Your task to perform on an android device: Open ESPN.com Image 0: 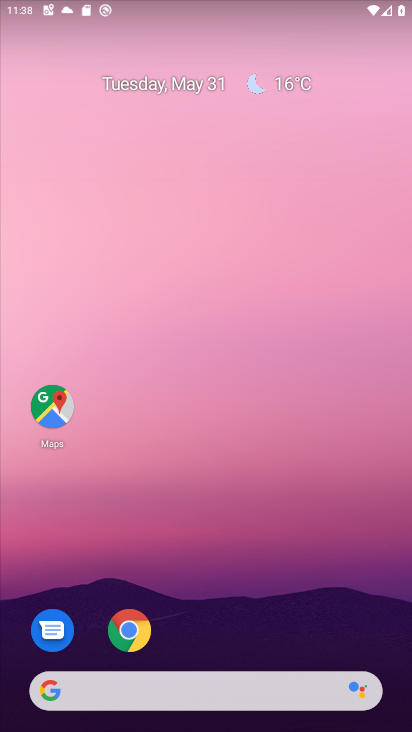
Step 0: drag from (287, 566) to (214, 133)
Your task to perform on an android device: Open ESPN.com Image 1: 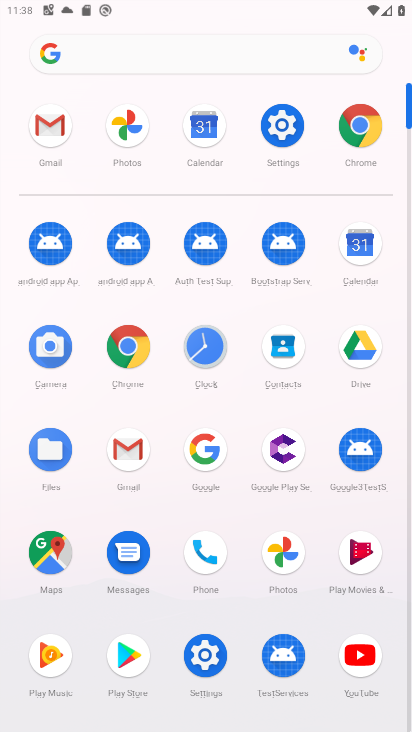
Step 1: click (364, 124)
Your task to perform on an android device: Open ESPN.com Image 2: 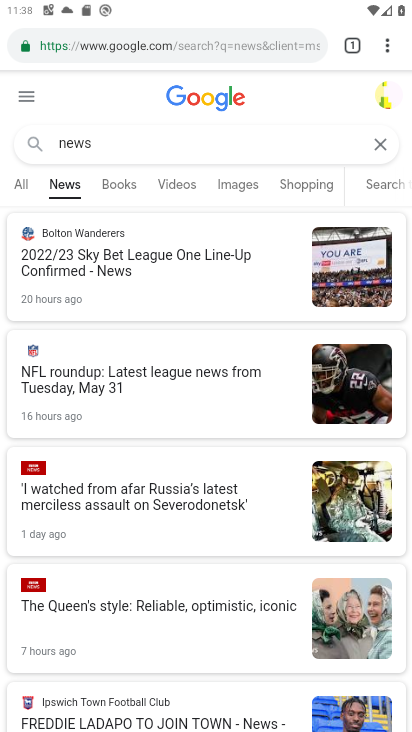
Step 2: click (243, 48)
Your task to perform on an android device: Open ESPN.com Image 3: 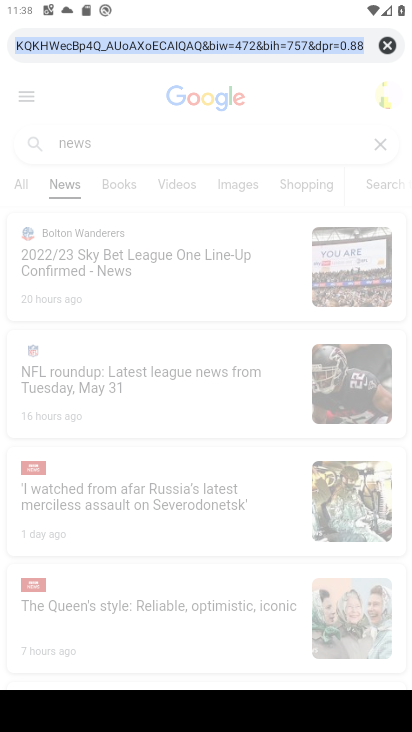
Step 3: type "espn.com"
Your task to perform on an android device: Open ESPN.com Image 4: 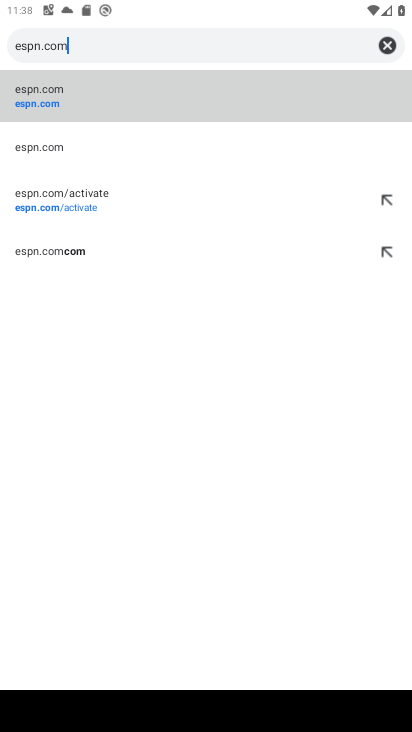
Step 4: click (32, 106)
Your task to perform on an android device: Open ESPN.com Image 5: 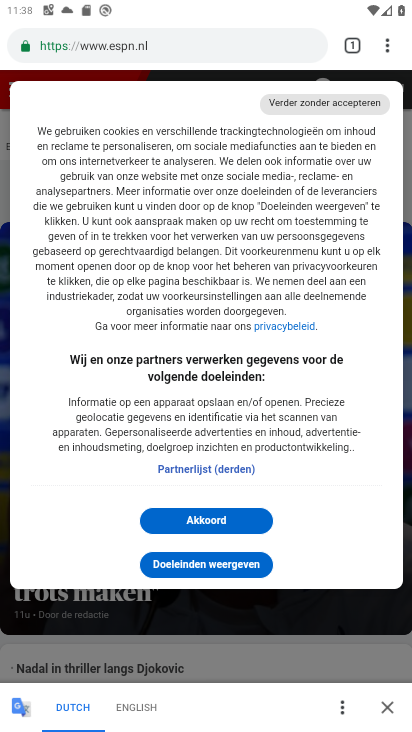
Step 5: task complete